Your task to perform on an android device: Show me productivity apps on the Play Store Image 0: 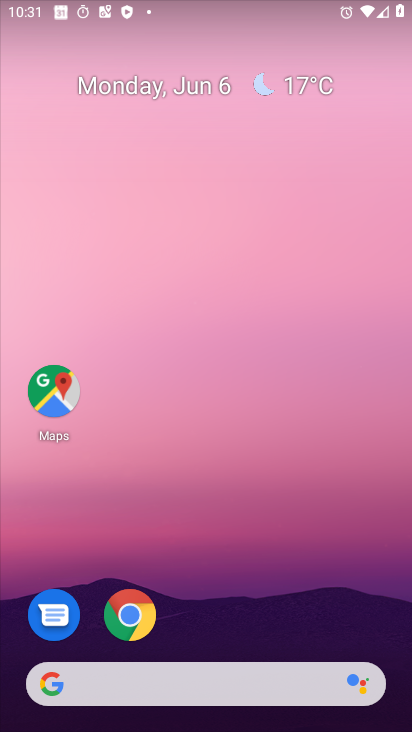
Step 0: drag from (223, 644) to (238, 83)
Your task to perform on an android device: Show me productivity apps on the Play Store Image 1: 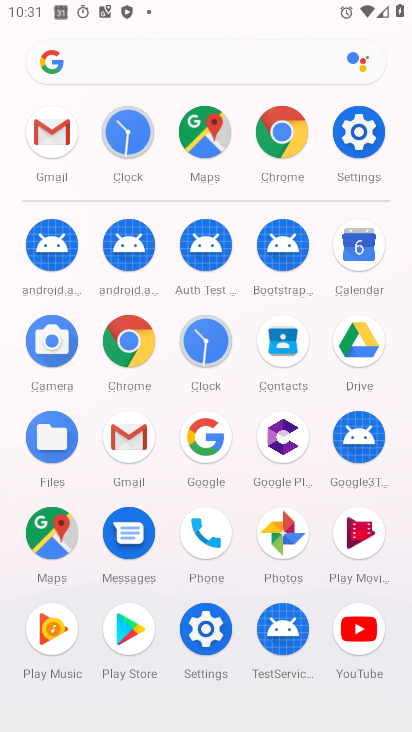
Step 1: click (128, 618)
Your task to perform on an android device: Show me productivity apps on the Play Store Image 2: 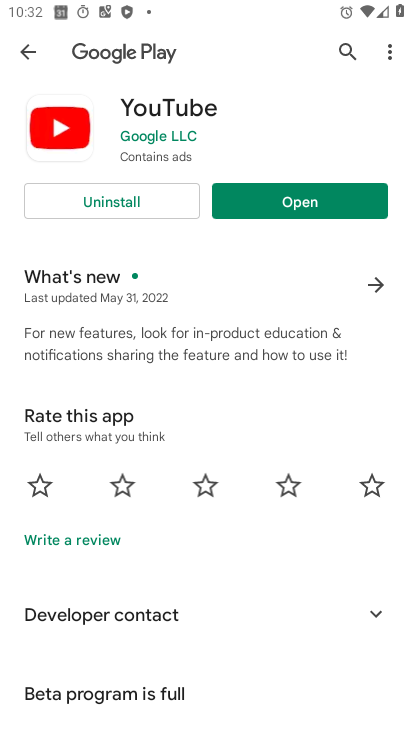
Step 2: click (26, 42)
Your task to perform on an android device: Show me productivity apps on the Play Store Image 3: 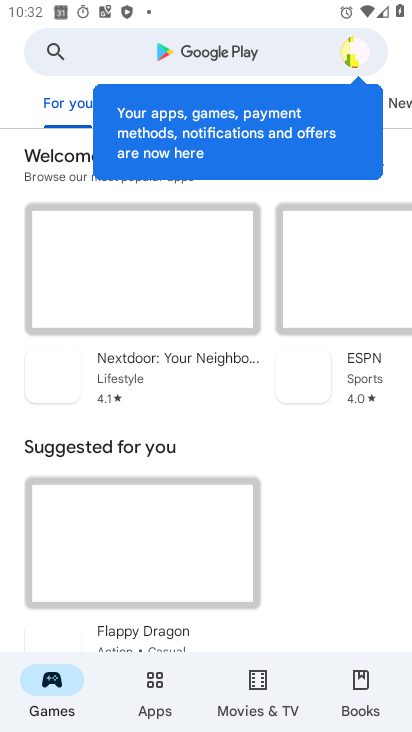
Step 3: click (151, 693)
Your task to perform on an android device: Show me productivity apps on the Play Store Image 4: 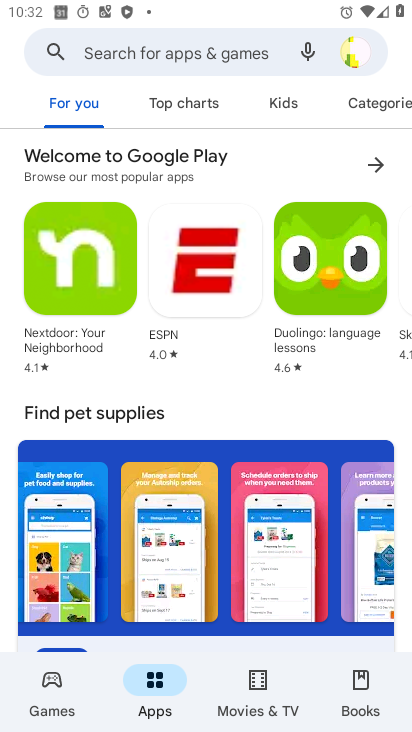
Step 4: click (388, 107)
Your task to perform on an android device: Show me productivity apps on the Play Store Image 5: 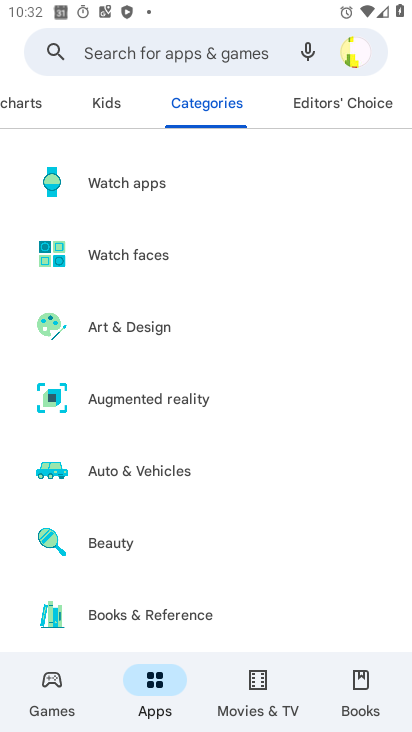
Step 5: drag from (199, 603) to (212, 59)
Your task to perform on an android device: Show me productivity apps on the Play Store Image 6: 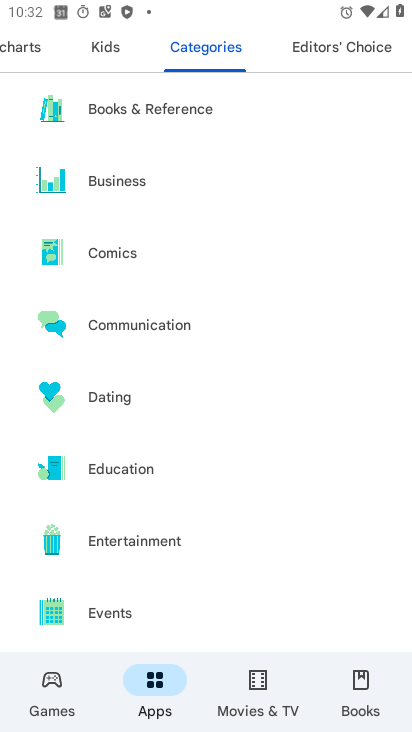
Step 6: drag from (187, 602) to (194, 144)
Your task to perform on an android device: Show me productivity apps on the Play Store Image 7: 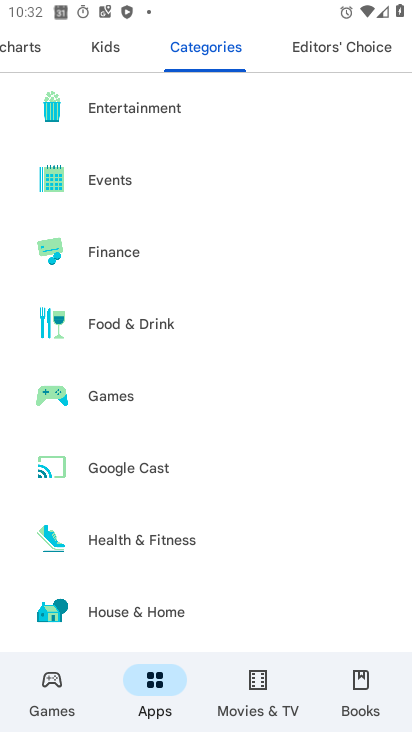
Step 7: drag from (208, 601) to (220, 122)
Your task to perform on an android device: Show me productivity apps on the Play Store Image 8: 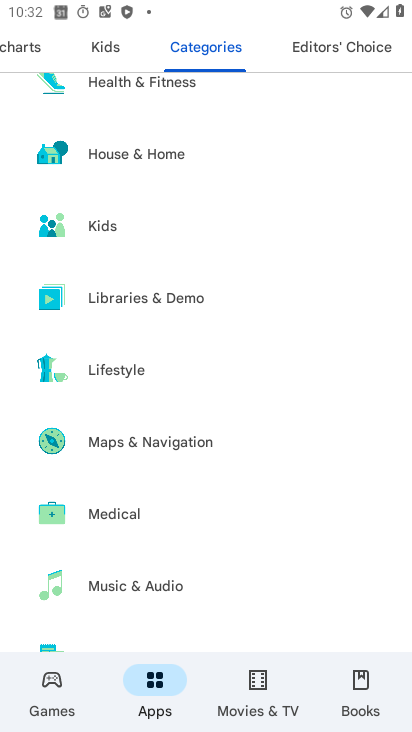
Step 8: drag from (205, 583) to (220, 78)
Your task to perform on an android device: Show me productivity apps on the Play Store Image 9: 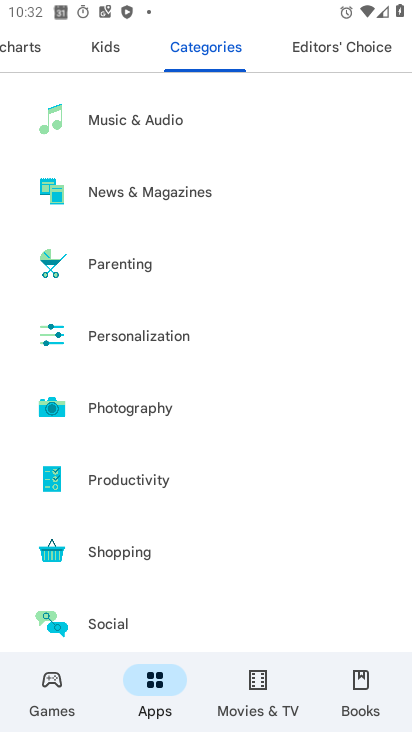
Step 9: click (174, 475)
Your task to perform on an android device: Show me productivity apps on the Play Store Image 10: 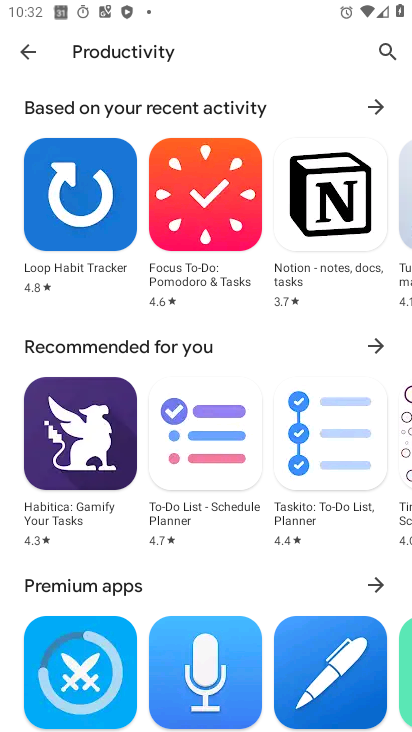
Step 10: task complete